Your task to perform on an android device: Search for Mexican restaurants on Maps Image 0: 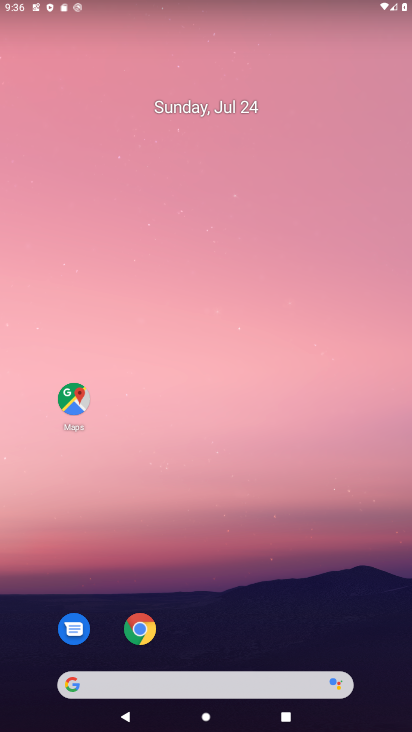
Step 0: click (75, 404)
Your task to perform on an android device: Search for Mexican restaurants on Maps Image 1: 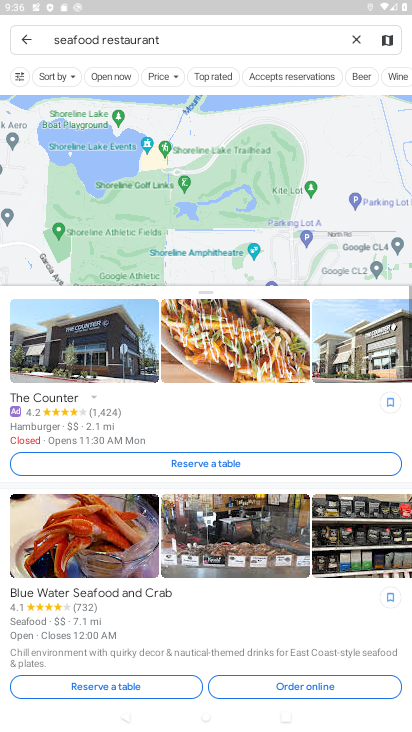
Step 1: click (283, 42)
Your task to perform on an android device: Search for Mexican restaurants on Maps Image 2: 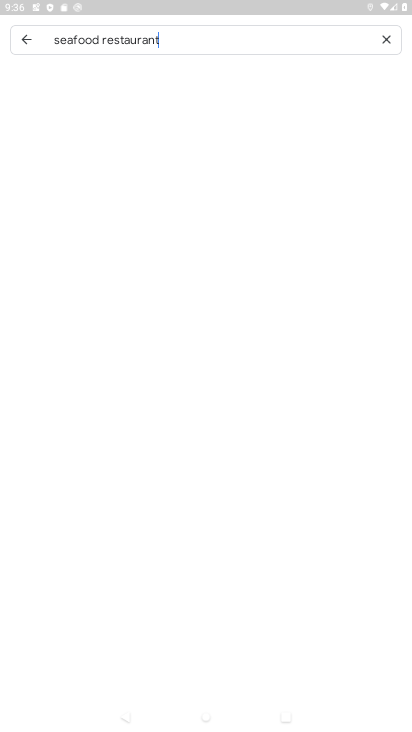
Step 2: click (358, 36)
Your task to perform on an android device: Search for Mexican restaurants on Maps Image 3: 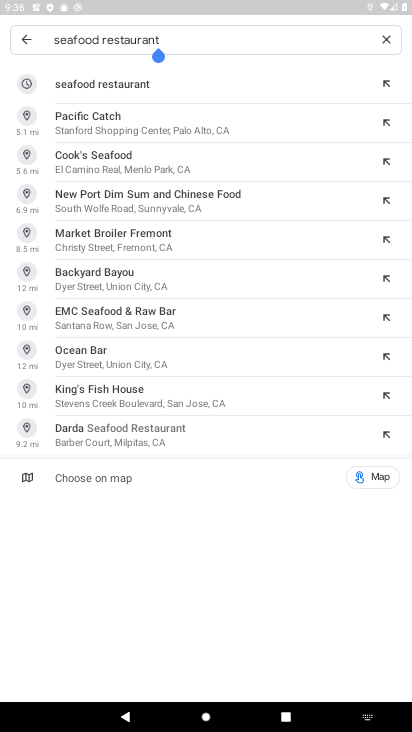
Step 3: click (381, 36)
Your task to perform on an android device: Search for Mexican restaurants on Maps Image 4: 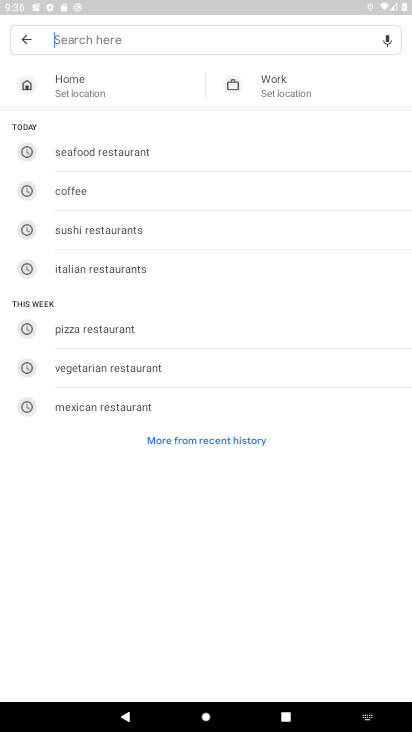
Step 4: click (193, 159)
Your task to perform on an android device: Search for Mexican restaurants on Maps Image 5: 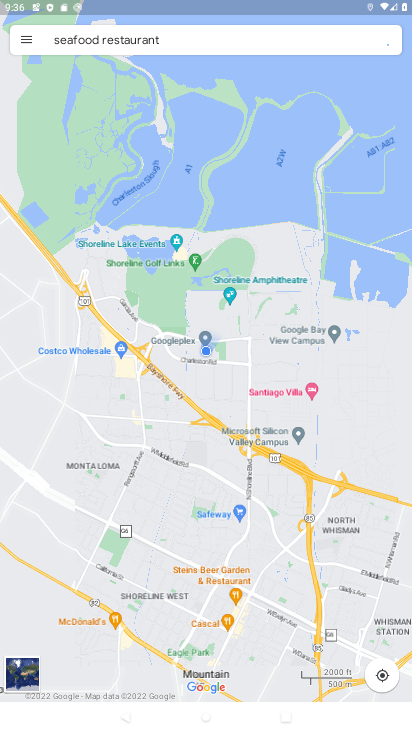
Step 5: task complete